Your task to perform on an android device: allow cookies in the chrome app Image 0: 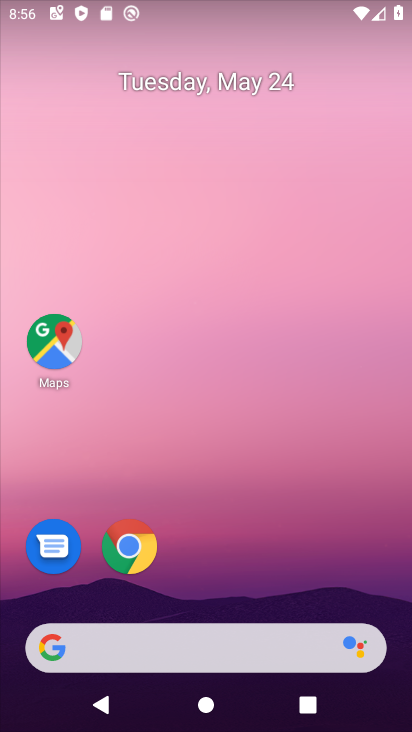
Step 0: click (135, 550)
Your task to perform on an android device: allow cookies in the chrome app Image 1: 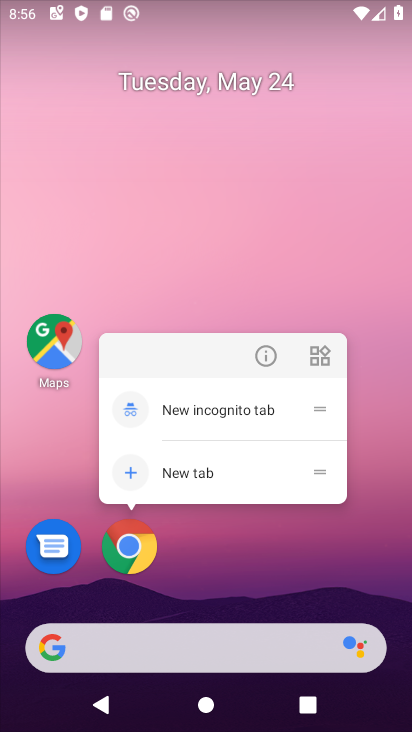
Step 1: click (135, 550)
Your task to perform on an android device: allow cookies in the chrome app Image 2: 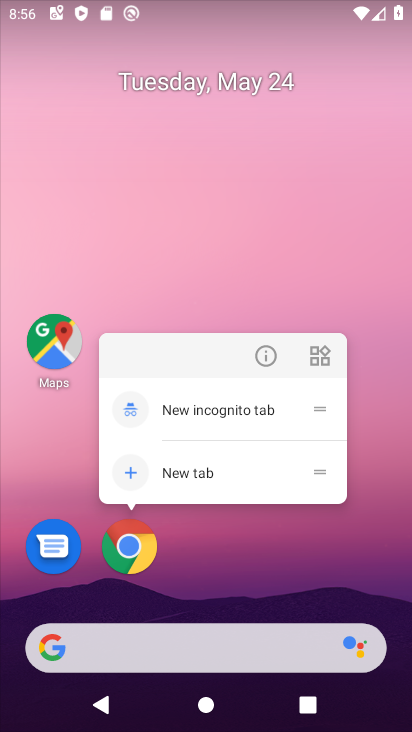
Step 2: click (133, 545)
Your task to perform on an android device: allow cookies in the chrome app Image 3: 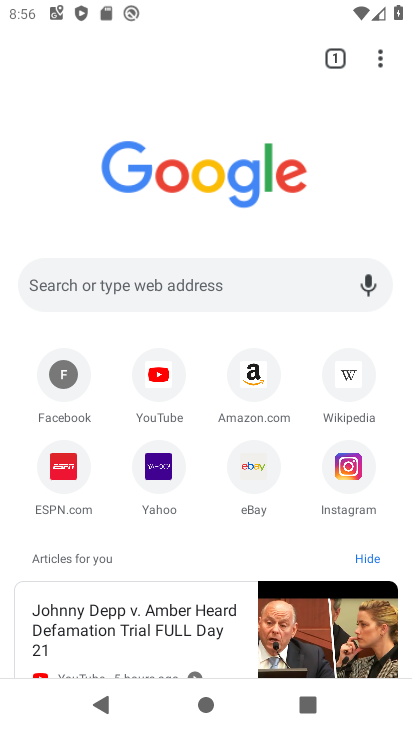
Step 3: click (373, 62)
Your task to perform on an android device: allow cookies in the chrome app Image 4: 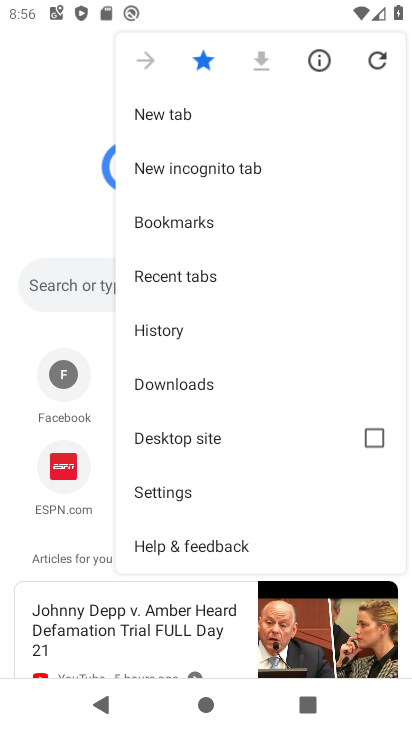
Step 4: click (168, 490)
Your task to perform on an android device: allow cookies in the chrome app Image 5: 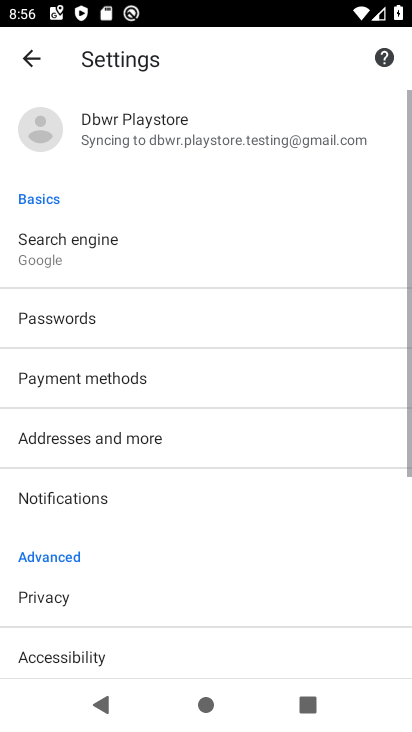
Step 5: drag from (84, 623) to (108, 274)
Your task to perform on an android device: allow cookies in the chrome app Image 6: 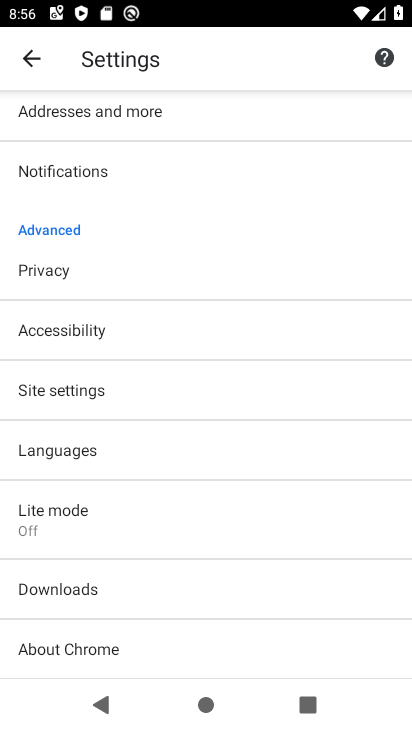
Step 6: click (58, 389)
Your task to perform on an android device: allow cookies in the chrome app Image 7: 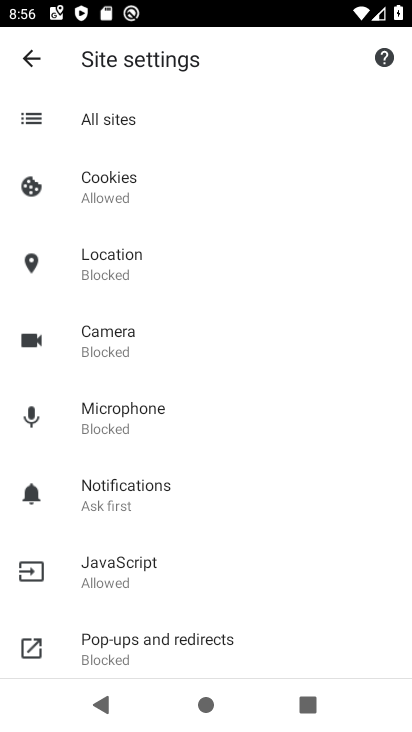
Step 7: click (124, 192)
Your task to perform on an android device: allow cookies in the chrome app Image 8: 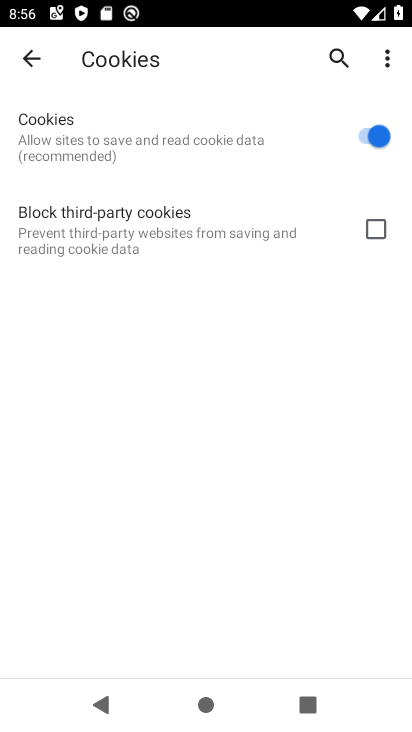
Step 8: task complete